Your task to perform on an android device: toggle airplane mode Image 0: 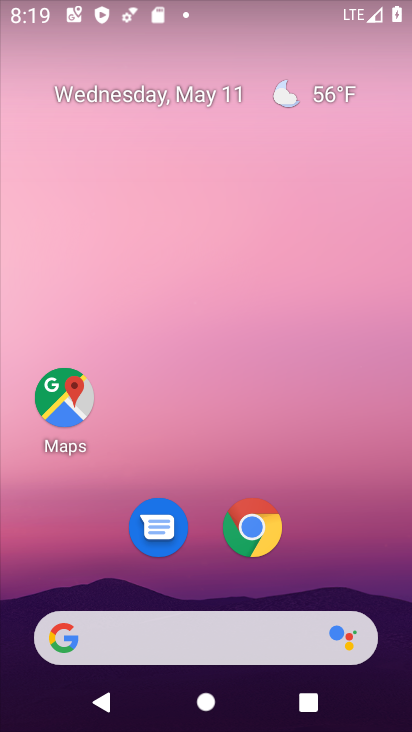
Step 0: drag from (89, 611) to (197, 159)
Your task to perform on an android device: toggle airplane mode Image 1: 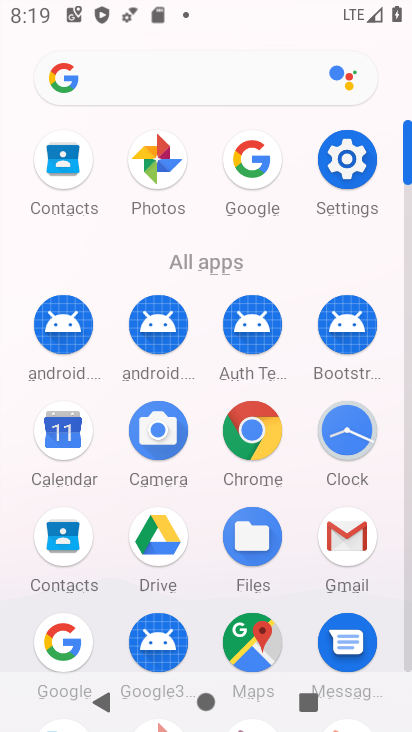
Step 1: click (343, 156)
Your task to perform on an android device: toggle airplane mode Image 2: 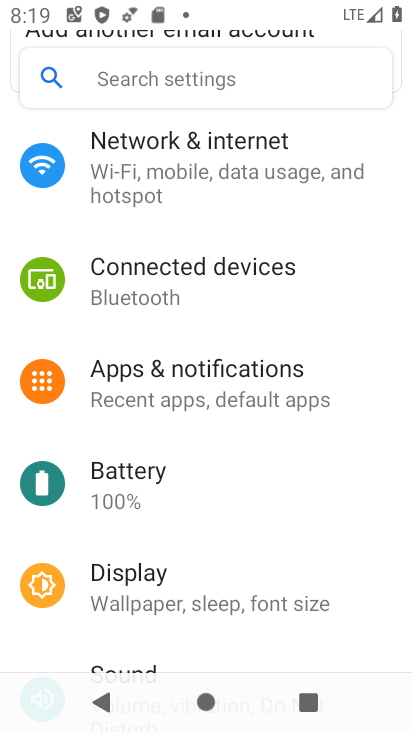
Step 2: click (266, 170)
Your task to perform on an android device: toggle airplane mode Image 3: 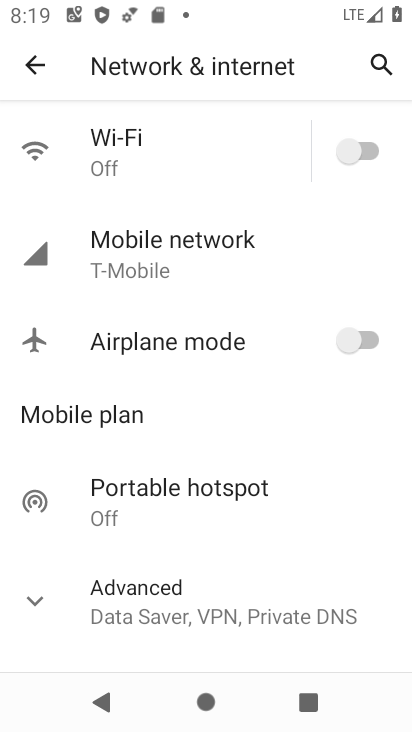
Step 3: click (383, 328)
Your task to perform on an android device: toggle airplane mode Image 4: 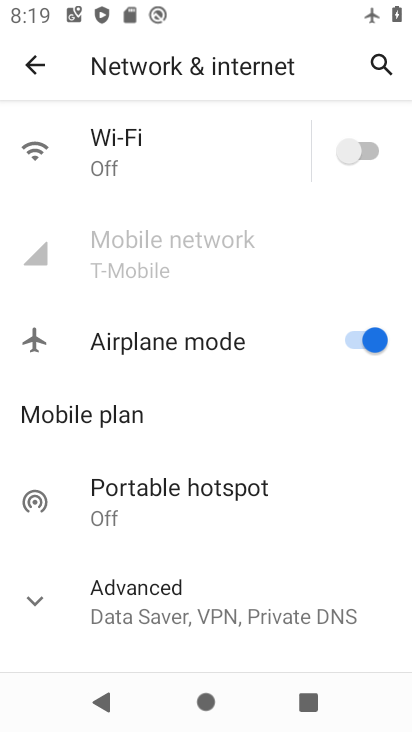
Step 4: task complete